Your task to perform on an android device: What is the news today? Image 0: 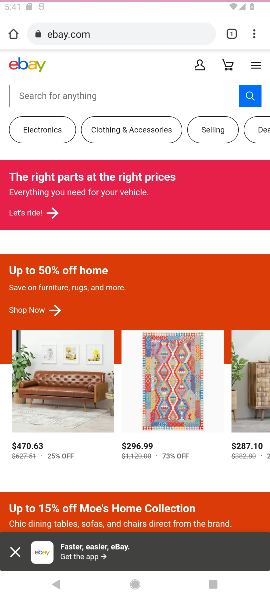
Step 0: press home button
Your task to perform on an android device: What is the news today? Image 1: 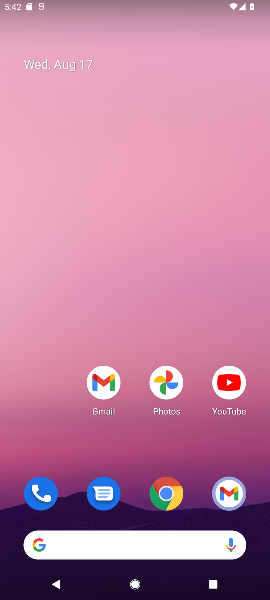
Step 1: drag from (149, 477) to (178, 95)
Your task to perform on an android device: What is the news today? Image 2: 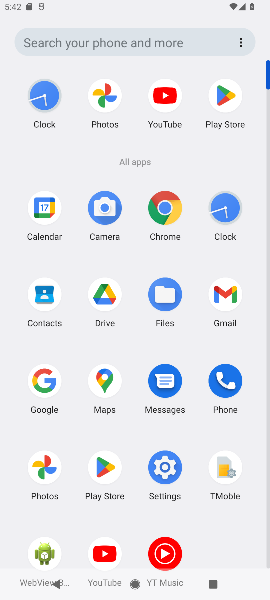
Step 2: click (41, 374)
Your task to perform on an android device: What is the news today? Image 3: 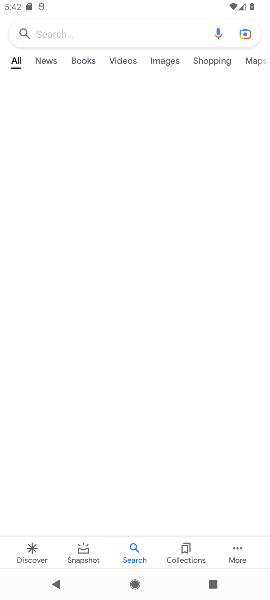
Step 3: click (34, 334)
Your task to perform on an android device: What is the news today? Image 4: 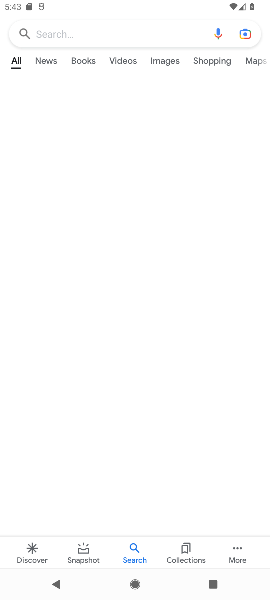
Step 4: click (99, 38)
Your task to perform on an android device: What is the news today? Image 5: 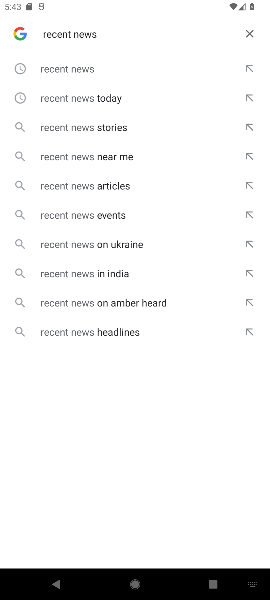
Step 5: click (247, 36)
Your task to perform on an android device: What is the news today? Image 6: 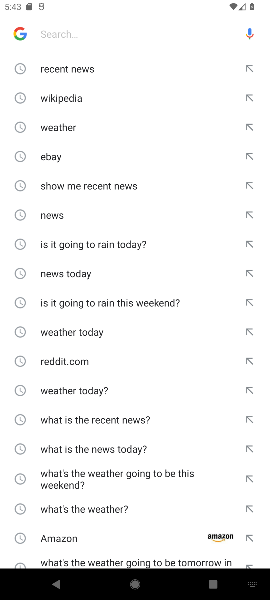
Step 6: type "news today?"
Your task to perform on an android device: What is the news today? Image 7: 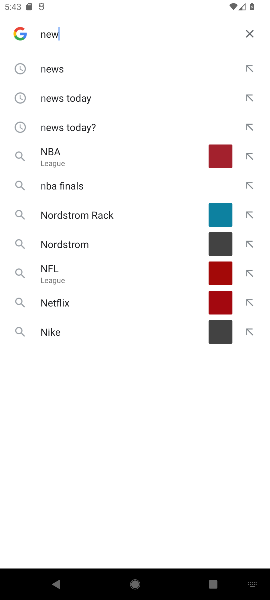
Step 7: press enter
Your task to perform on an android device: What is the news today? Image 8: 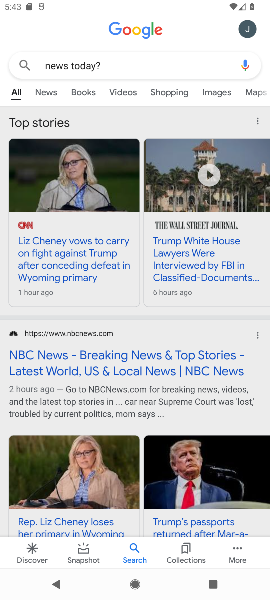
Step 8: task complete